Your task to perform on an android device: When is my next appointment? Image 0: 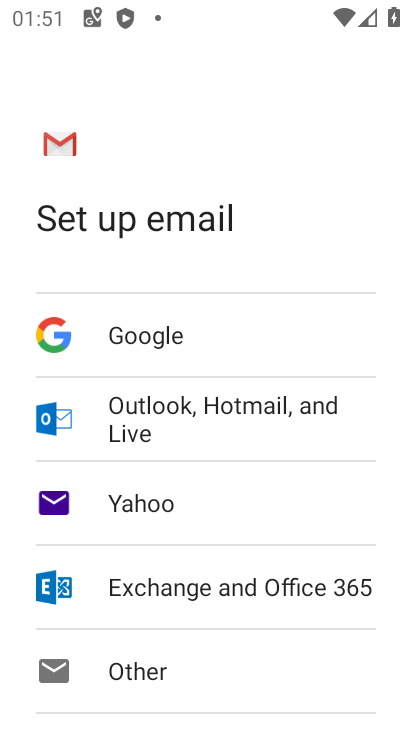
Step 0: press home button
Your task to perform on an android device: When is my next appointment? Image 1: 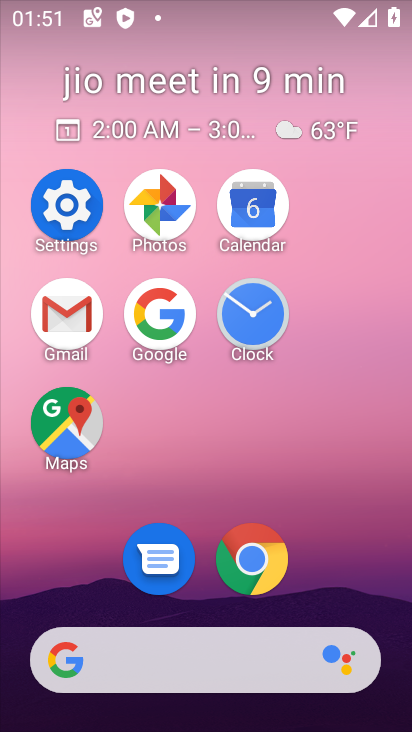
Step 1: click (256, 193)
Your task to perform on an android device: When is my next appointment? Image 2: 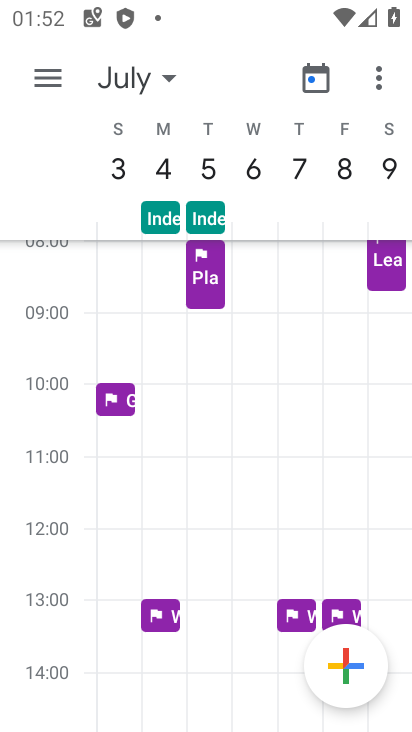
Step 2: click (145, 81)
Your task to perform on an android device: When is my next appointment? Image 3: 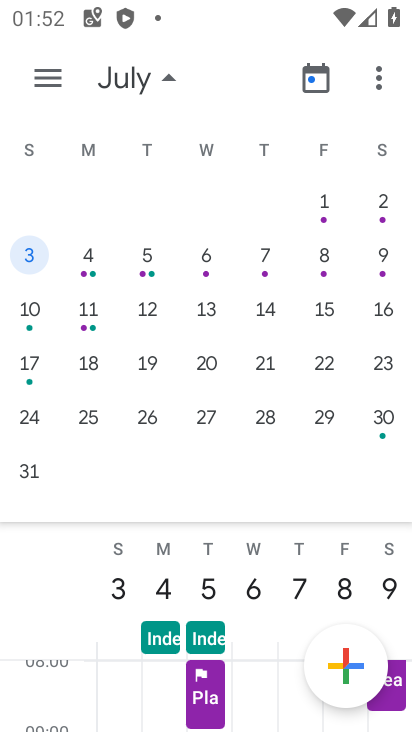
Step 3: drag from (57, 366) to (410, 187)
Your task to perform on an android device: When is my next appointment? Image 4: 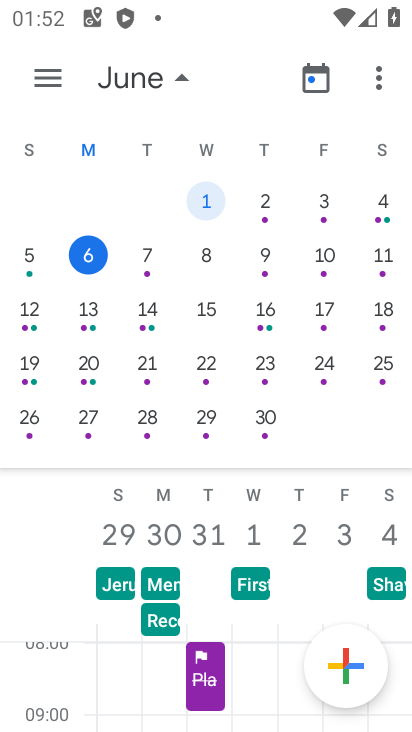
Step 4: click (139, 253)
Your task to perform on an android device: When is my next appointment? Image 5: 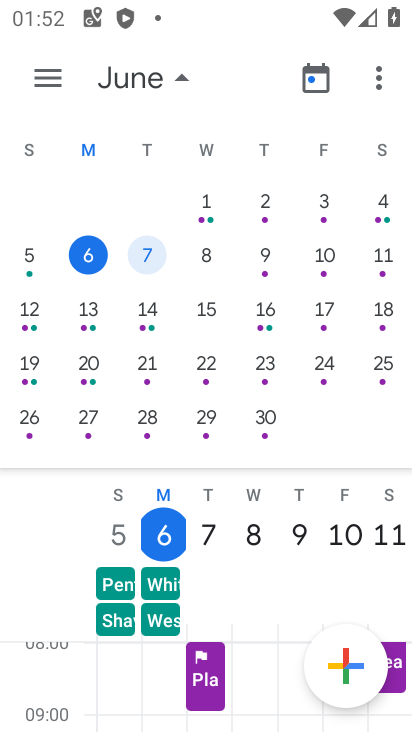
Step 5: click (200, 526)
Your task to perform on an android device: When is my next appointment? Image 6: 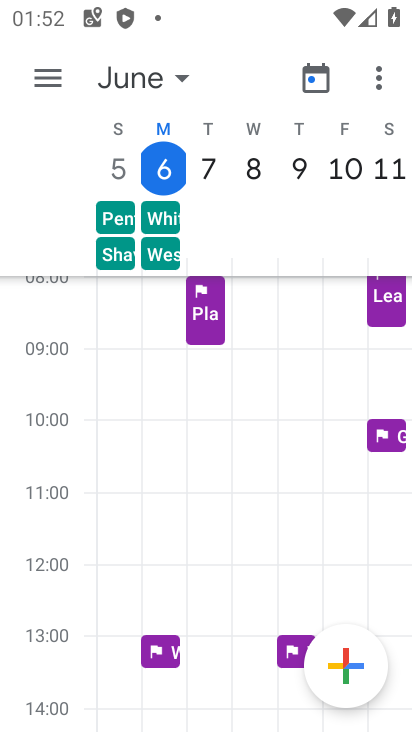
Step 6: task complete